Your task to perform on an android device: change timer sound Image 0: 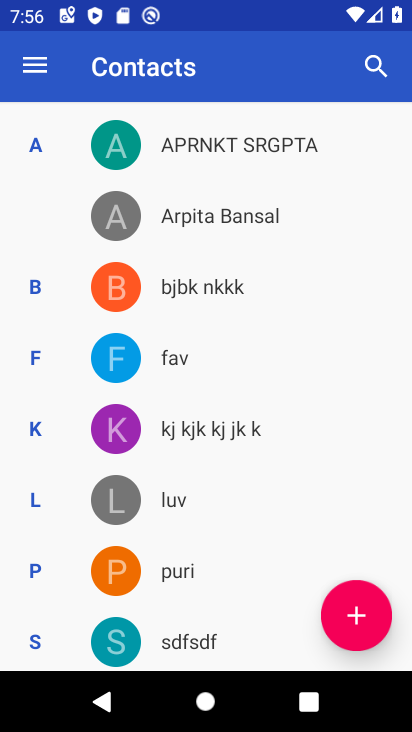
Step 0: press home button
Your task to perform on an android device: change timer sound Image 1: 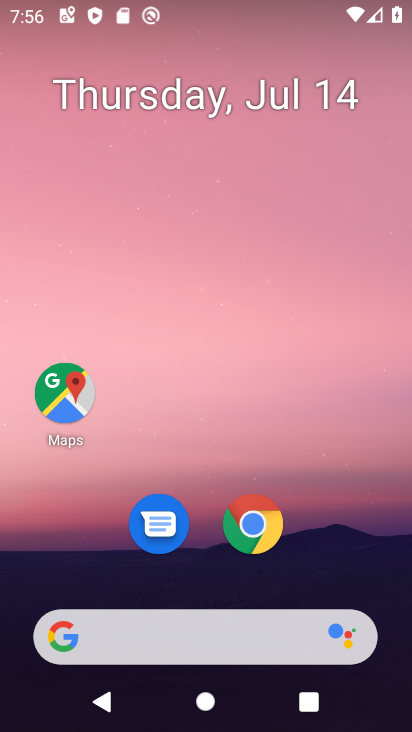
Step 1: drag from (341, 510) to (331, 57)
Your task to perform on an android device: change timer sound Image 2: 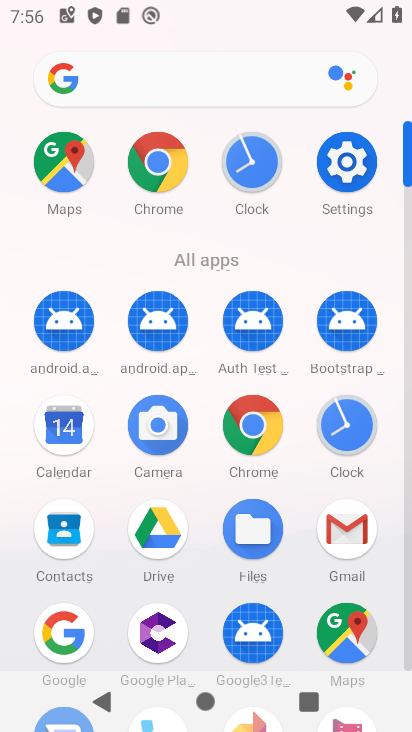
Step 2: click (265, 174)
Your task to perform on an android device: change timer sound Image 3: 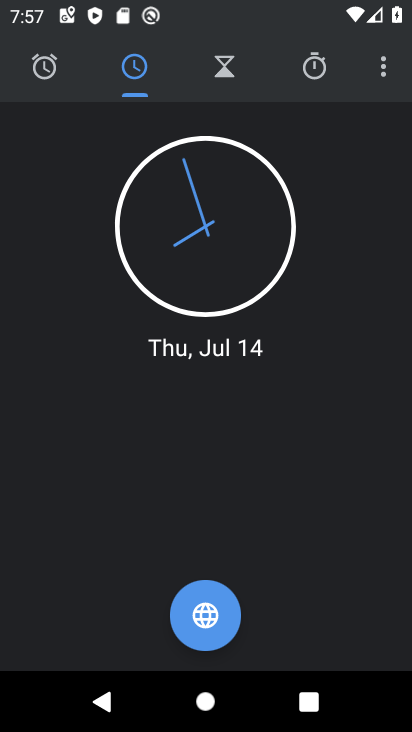
Step 3: click (379, 60)
Your task to perform on an android device: change timer sound Image 4: 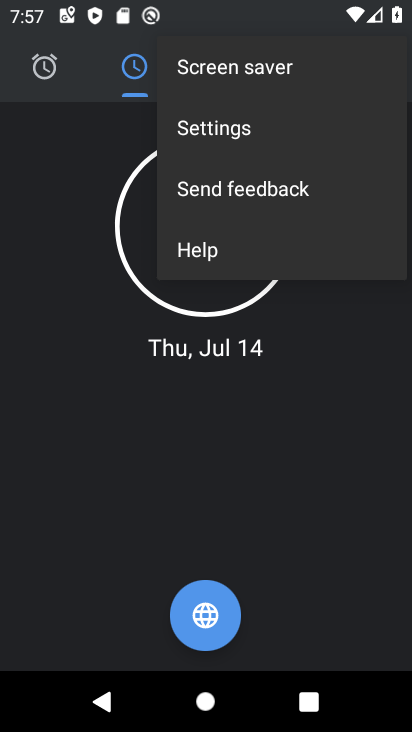
Step 4: click (297, 130)
Your task to perform on an android device: change timer sound Image 5: 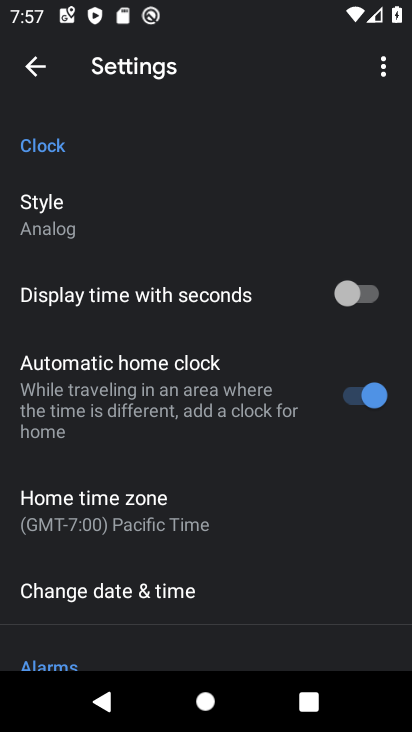
Step 5: drag from (273, 522) to (281, 3)
Your task to perform on an android device: change timer sound Image 6: 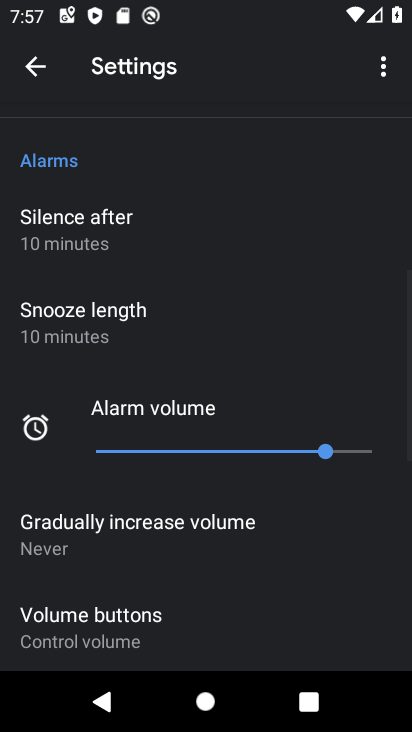
Step 6: drag from (247, 375) to (268, 2)
Your task to perform on an android device: change timer sound Image 7: 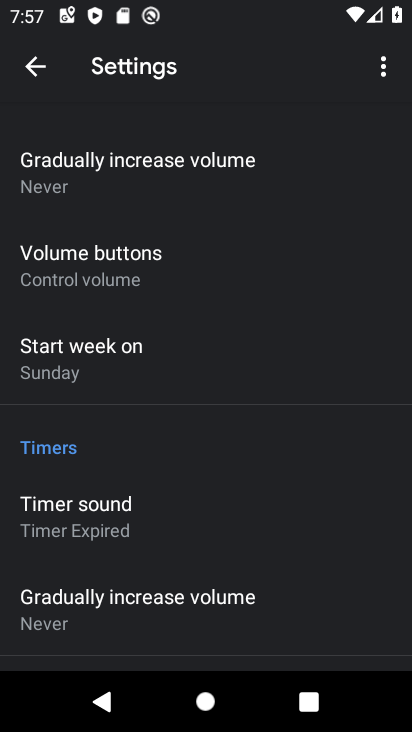
Step 7: drag from (259, 518) to (257, 402)
Your task to perform on an android device: change timer sound Image 8: 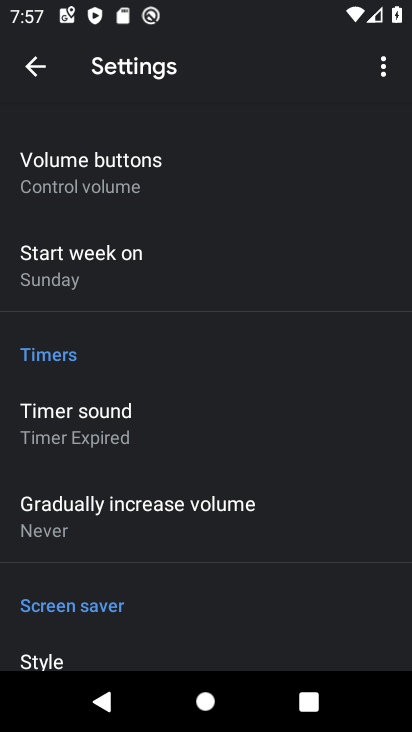
Step 8: click (107, 425)
Your task to perform on an android device: change timer sound Image 9: 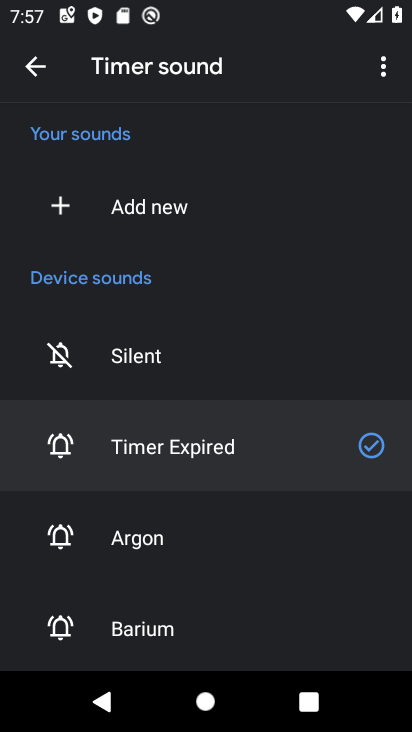
Step 9: click (126, 535)
Your task to perform on an android device: change timer sound Image 10: 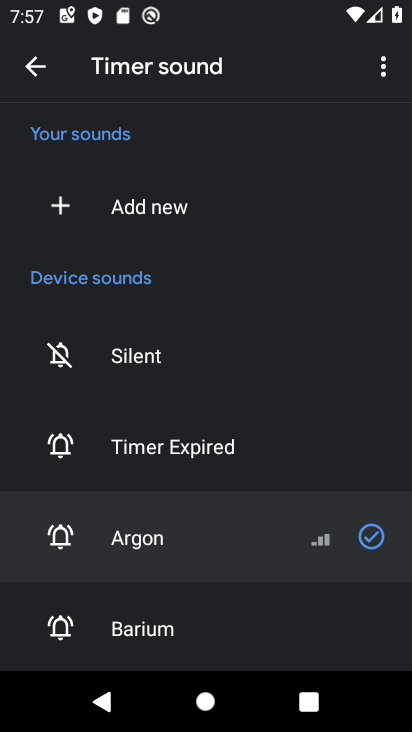
Step 10: task complete